Your task to perform on an android device: Open CNN.com Image 0: 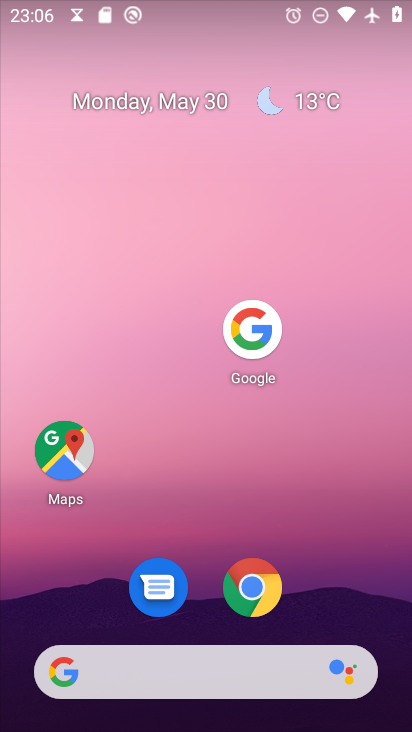
Step 0: press home button
Your task to perform on an android device: Open CNN.com Image 1: 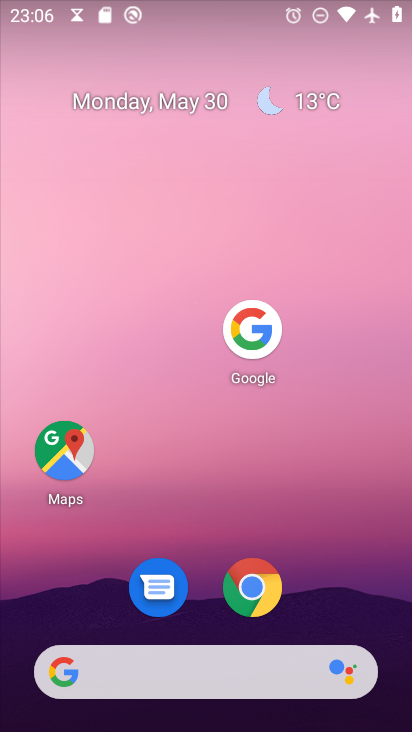
Step 1: click (259, 596)
Your task to perform on an android device: Open CNN.com Image 2: 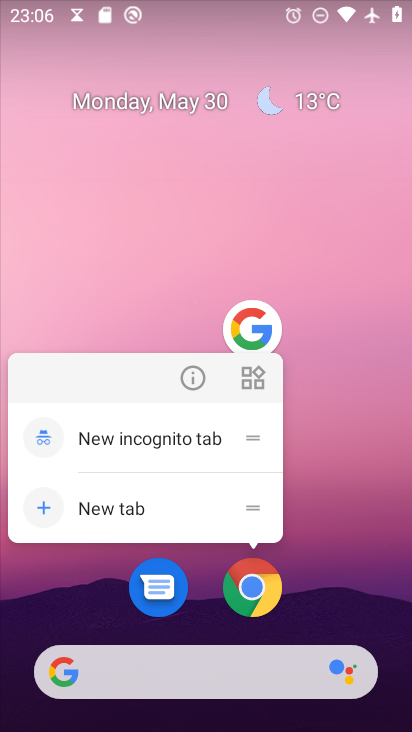
Step 2: click (255, 593)
Your task to perform on an android device: Open CNN.com Image 3: 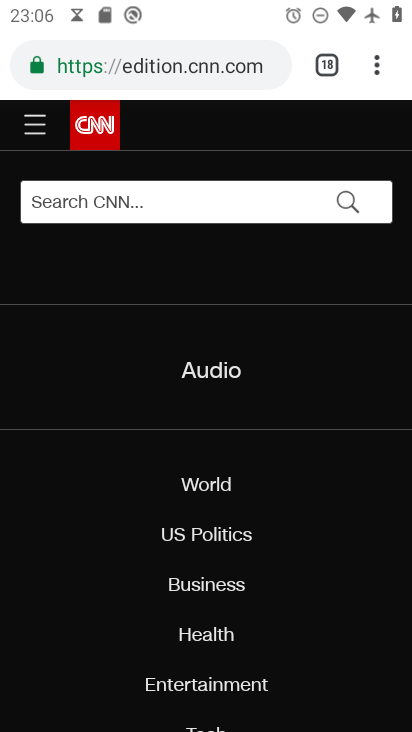
Step 3: task complete